Your task to perform on an android device: Open ESPN.com Image 0: 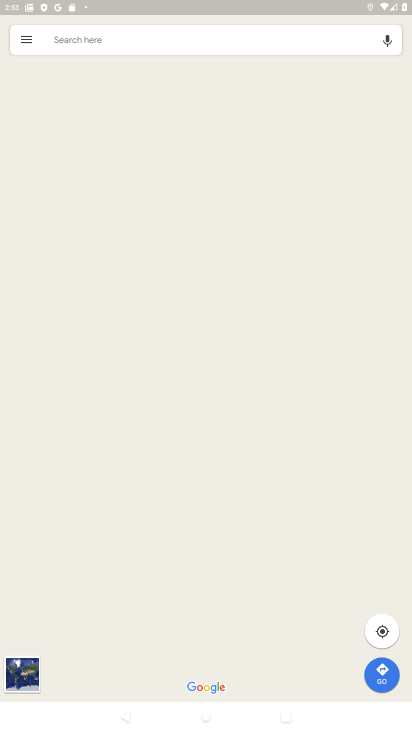
Step 0: press home button
Your task to perform on an android device: Open ESPN.com Image 1: 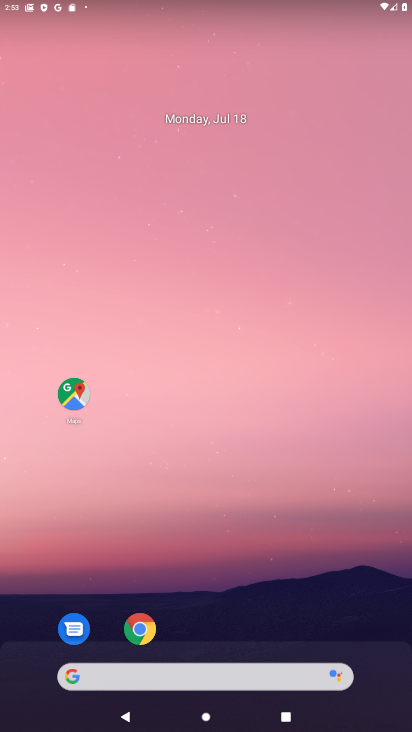
Step 1: drag from (201, 337) to (201, 161)
Your task to perform on an android device: Open ESPN.com Image 2: 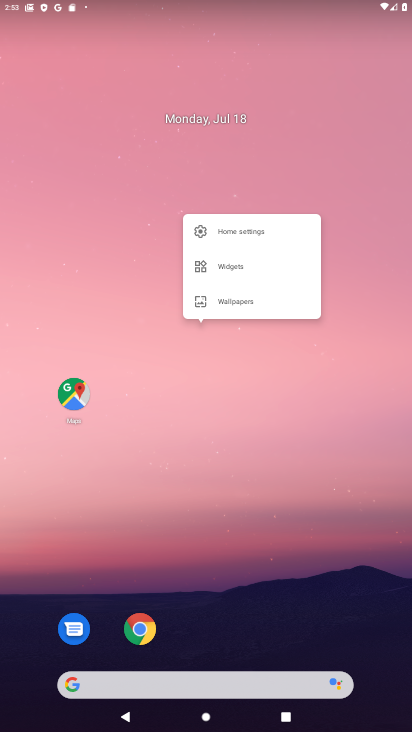
Step 2: click (141, 618)
Your task to perform on an android device: Open ESPN.com Image 3: 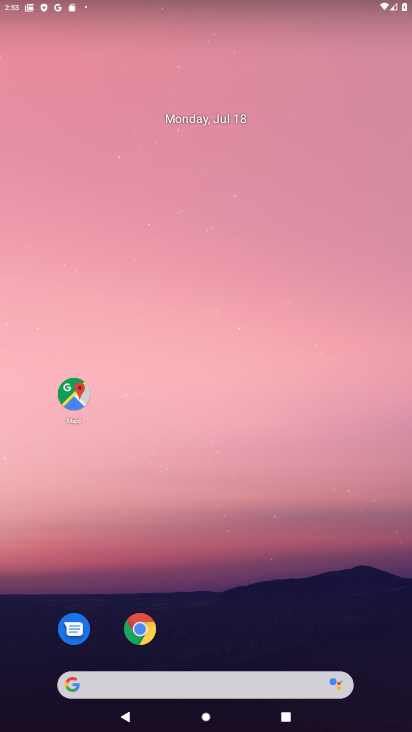
Step 3: click (146, 622)
Your task to perform on an android device: Open ESPN.com Image 4: 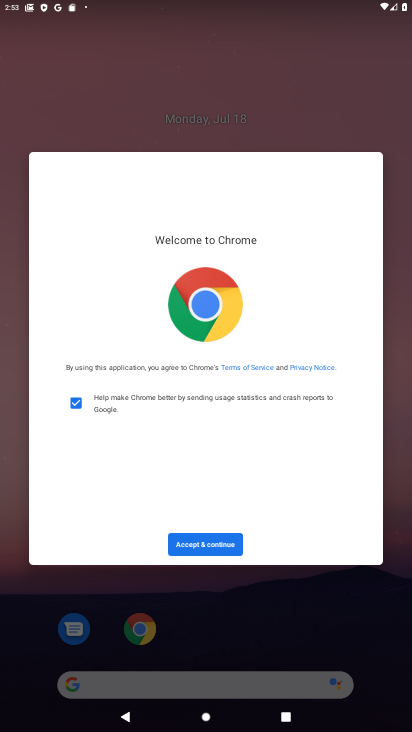
Step 4: click (216, 548)
Your task to perform on an android device: Open ESPN.com Image 5: 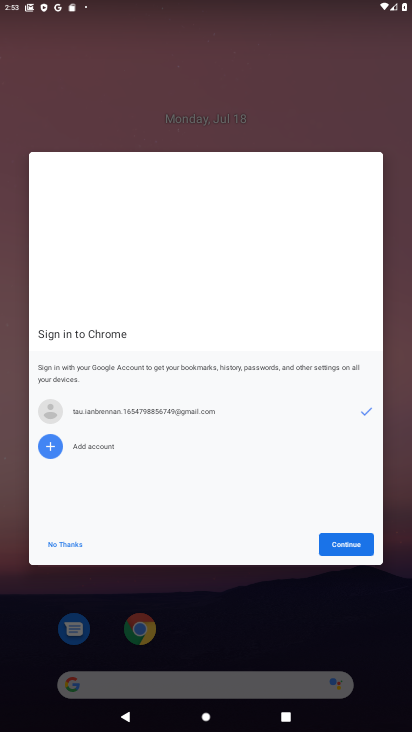
Step 5: click (333, 555)
Your task to perform on an android device: Open ESPN.com Image 6: 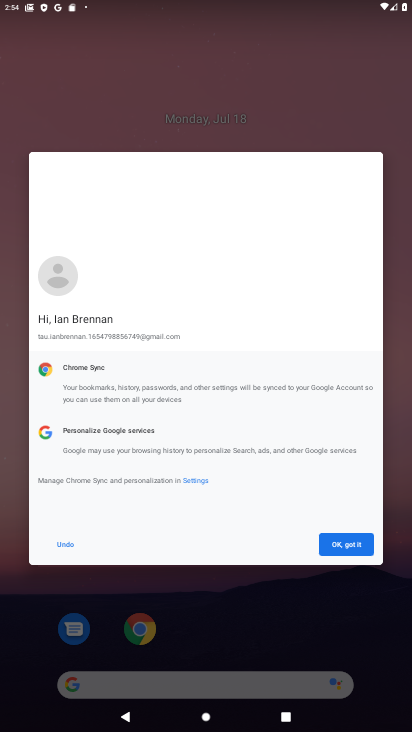
Step 6: click (346, 547)
Your task to perform on an android device: Open ESPN.com Image 7: 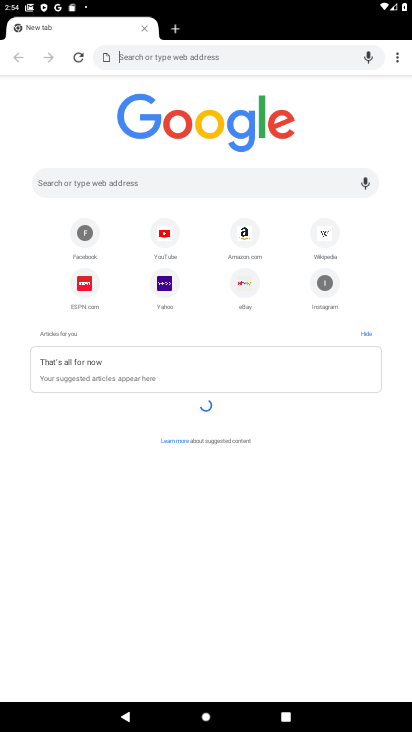
Step 7: click (83, 284)
Your task to perform on an android device: Open ESPN.com Image 8: 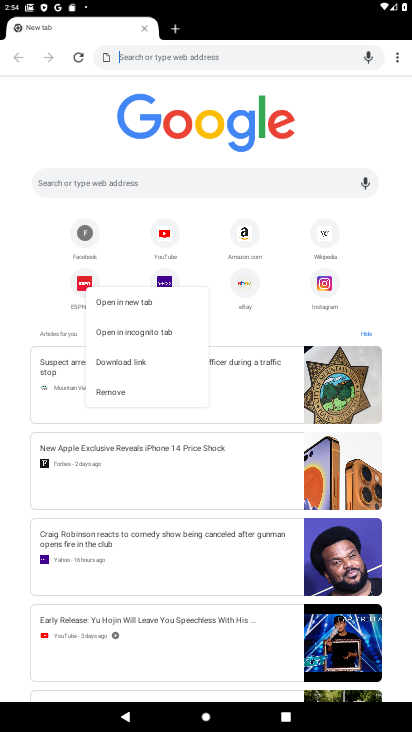
Step 8: click (69, 282)
Your task to perform on an android device: Open ESPN.com Image 9: 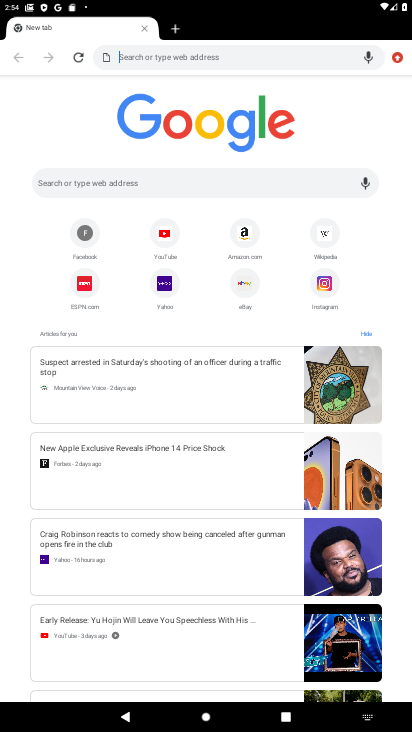
Step 9: click (82, 287)
Your task to perform on an android device: Open ESPN.com Image 10: 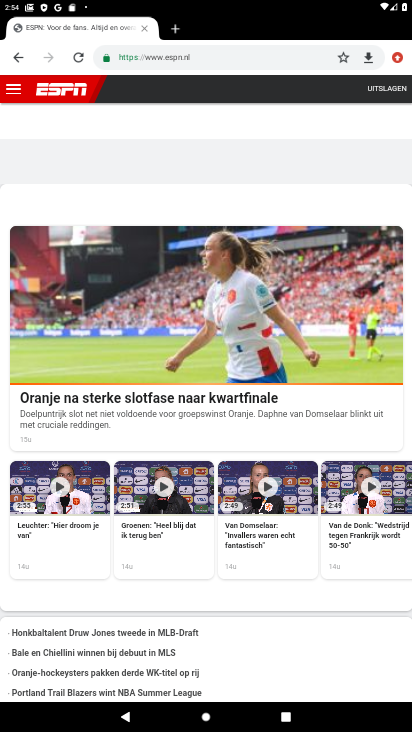
Step 10: task complete